Your task to perform on an android device: turn off priority inbox in the gmail app Image 0: 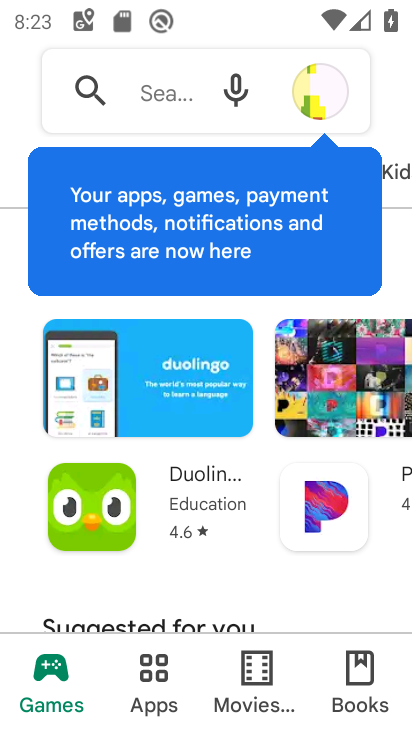
Step 0: press home button
Your task to perform on an android device: turn off priority inbox in the gmail app Image 1: 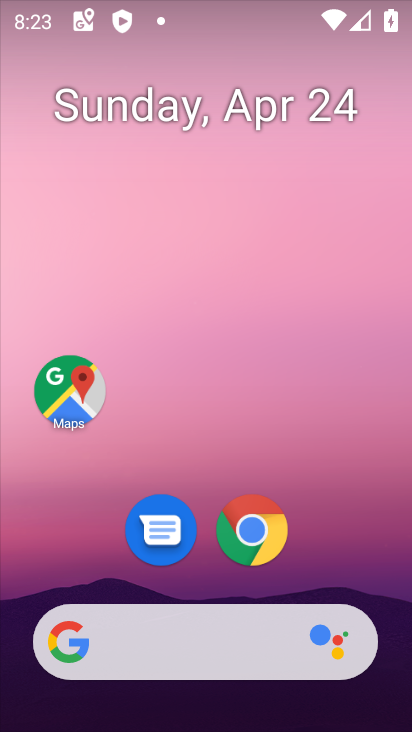
Step 1: drag from (197, 560) to (217, 57)
Your task to perform on an android device: turn off priority inbox in the gmail app Image 2: 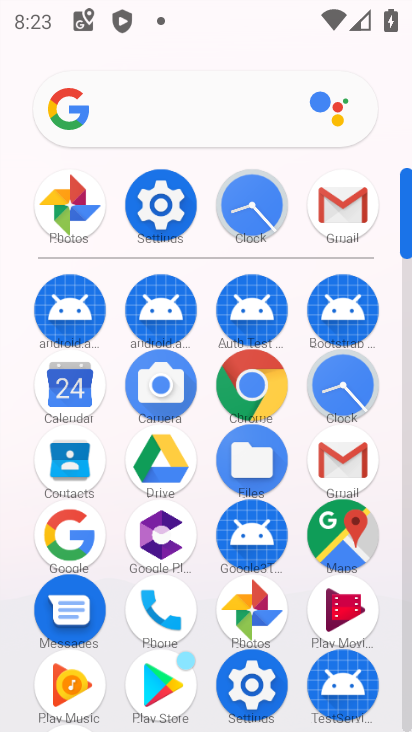
Step 2: click (341, 446)
Your task to perform on an android device: turn off priority inbox in the gmail app Image 3: 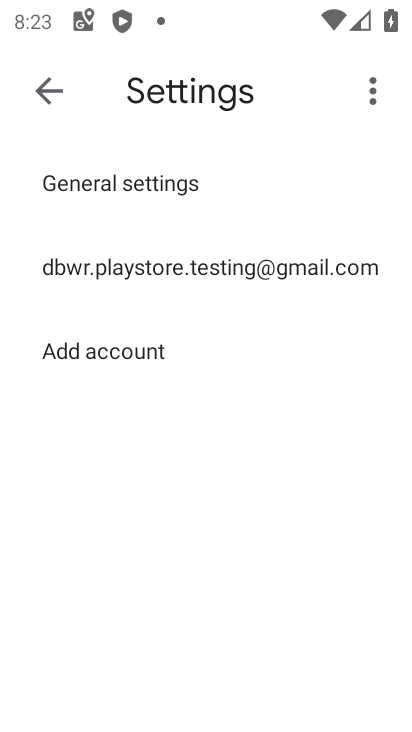
Step 3: click (189, 268)
Your task to perform on an android device: turn off priority inbox in the gmail app Image 4: 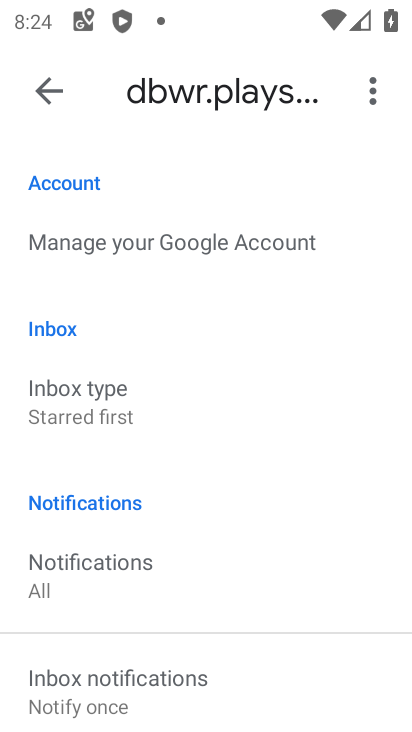
Step 4: click (129, 405)
Your task to perform on an android device: turn off priority inbox in the gmail app Image 5: 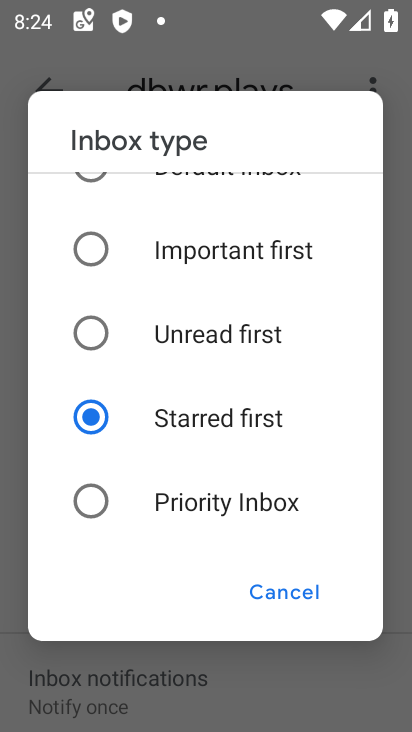
Step 5: task complete